Your task to perform on an android device: find which apps use the phone's location Image 0: 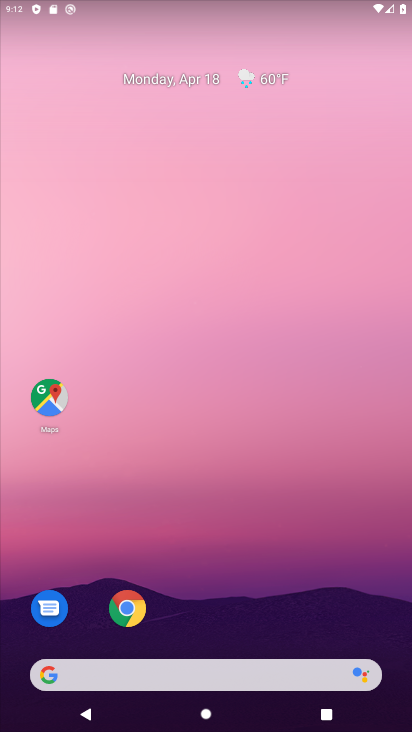
Step 0: click (345, 54)
Your task to perform on an android device: find which apps use the phone's location Image 1: 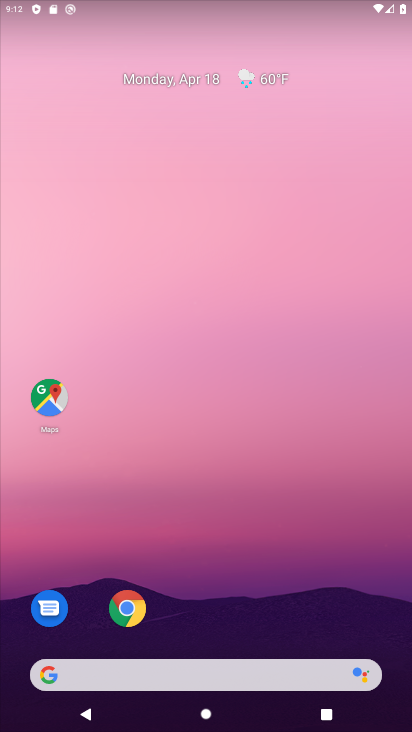
Step 1: drag from (383, 641) to (344, 82)
Your task to perform on an android device: find which apps use the phone's location Image 2: 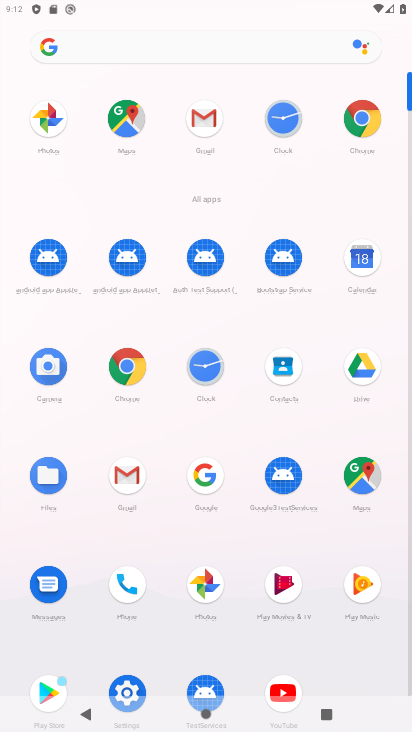
Step 2: click (125, 684)
Your task to perform on an android device: find which apps use the phone's location Image 3: 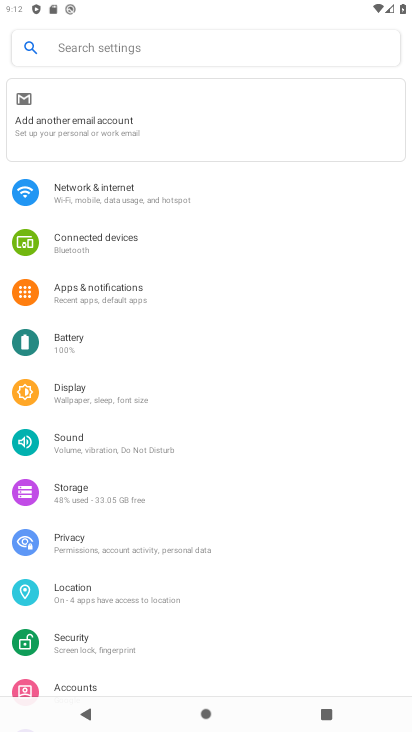
Step 3: click (70, 586)
Your task to perform on an android device: find which apps use the phone's location Image 4: 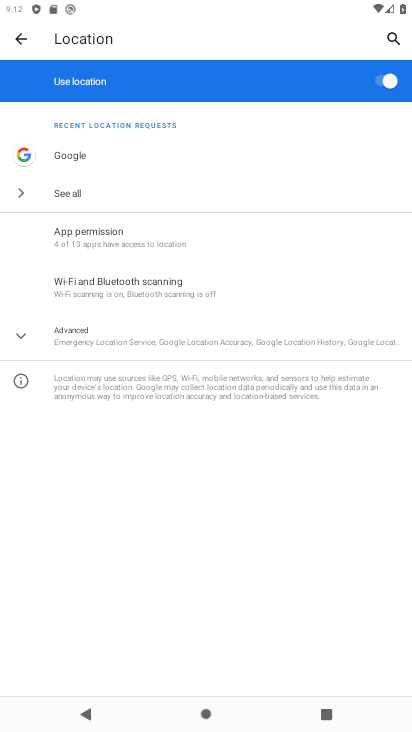
Step 4: click (75, 234)
Your task to perform on an android device: find which apps use the phone's location Image 5: 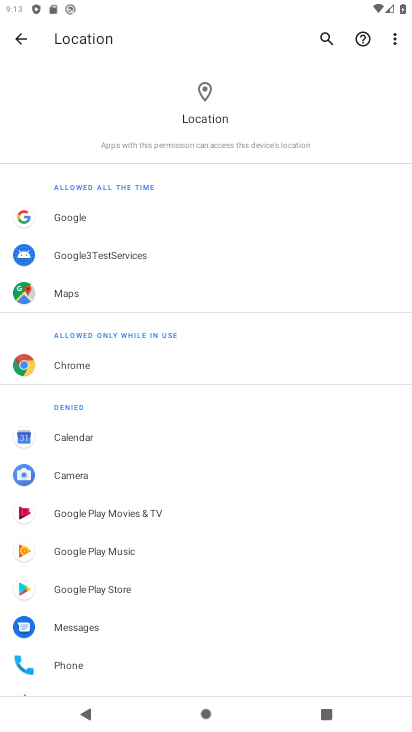
Step 5: task complete